Your task to perform on an android device: turn on airplane mode Image 0: 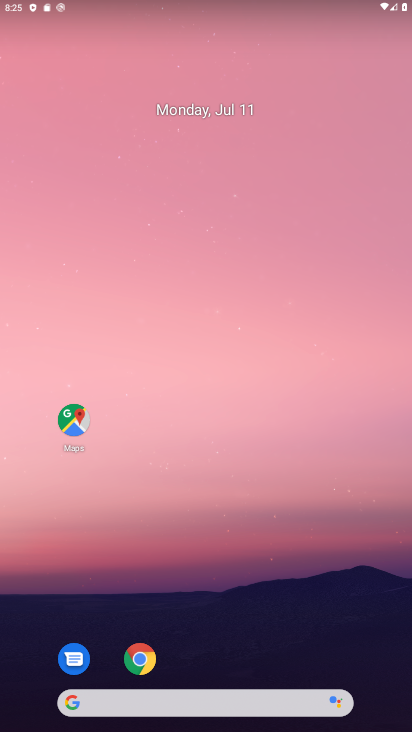
Step 0: drag from (209, 641) to (261, 192)
Your task to perform on an android device: turn on airplane mode Image 1: 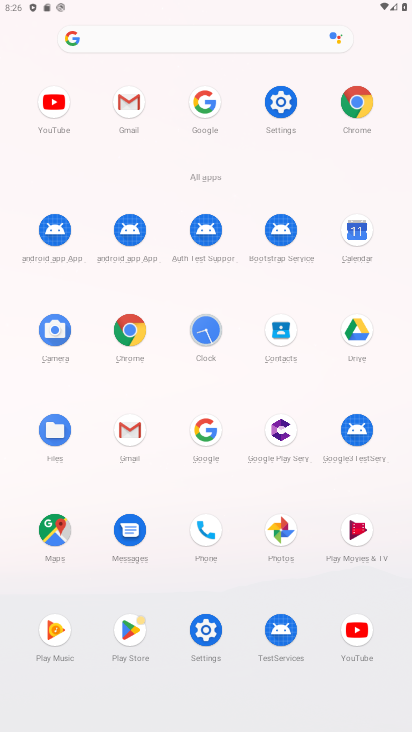
Step 1: click (264, 113)
Your task to perform on an android device: turn on airplane mode Image 2: 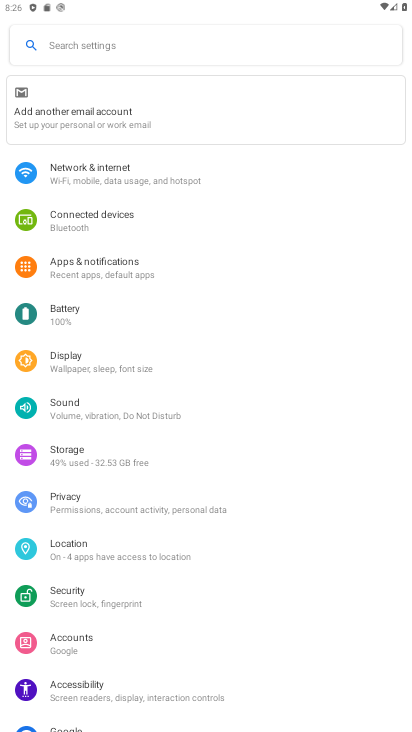
Step 2: click (166, 177)
Your task to perform on an android device: turn on airplane mode Image 3: 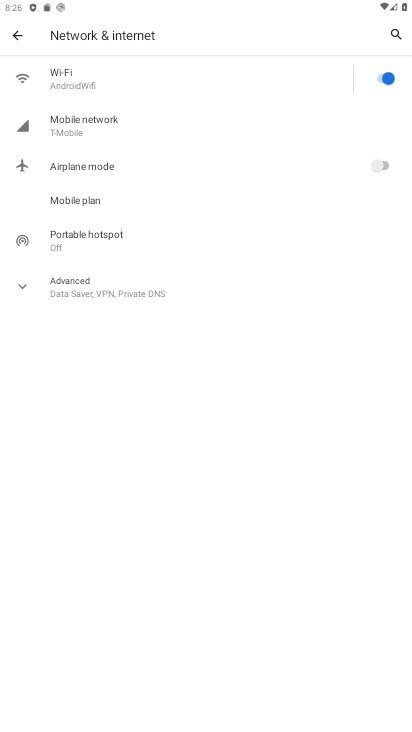
Step 3: click (384, 166)
Your task to perform on an android device: turn on airplane mode Image 4: 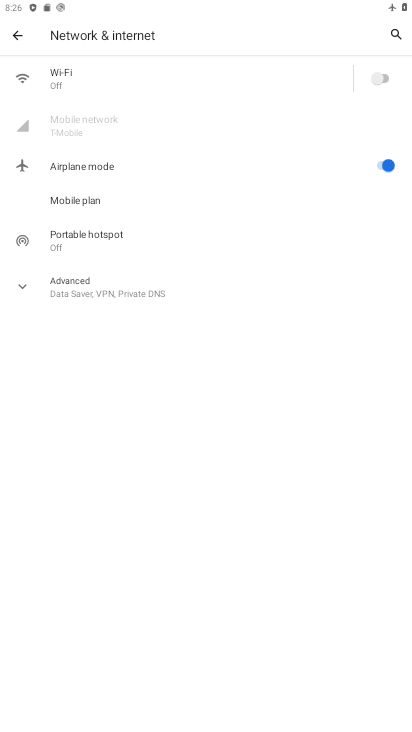
Step 4: task complete